Your task to perform on an android device: visit the assistant section in the google photos Image 0: 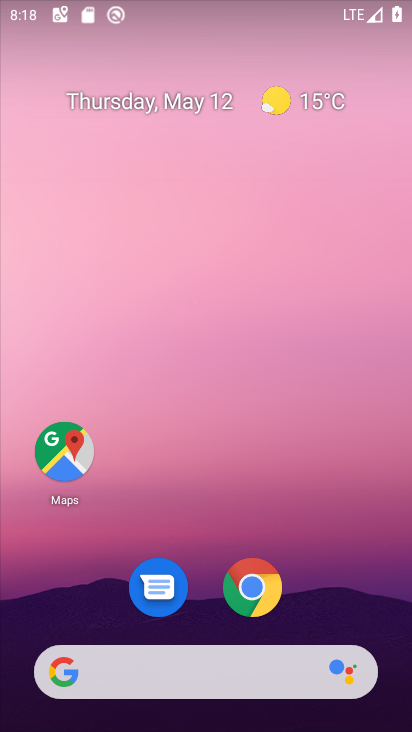
Step 0: drag from (402, 629) to (286, 245)
Your task to perform on an android device: visit the assistant section in the google photos Image 1: 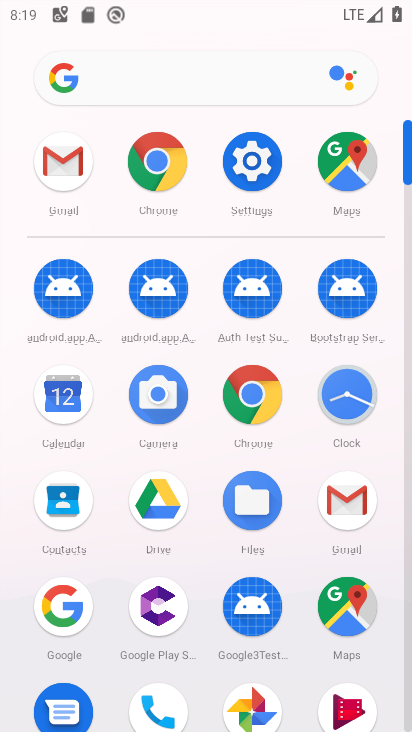
Step 1: click (247, 693)
Your task to perform on an android device: visit the assistant section in the google photos Image 2: 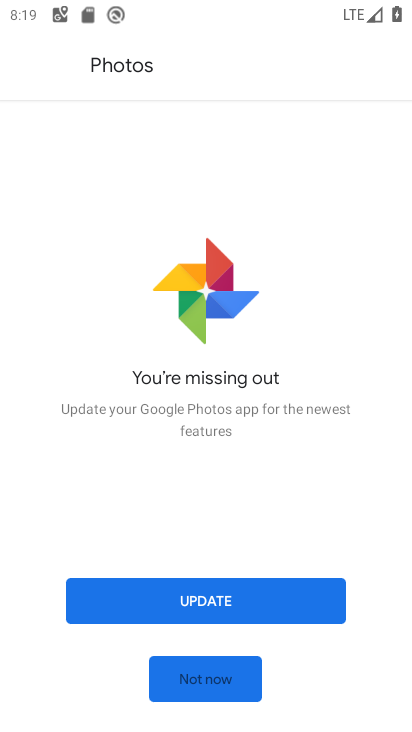
Step 2: click (222, 599)
Your task to perform on an android device: visit the assistant section in the google photos Image 3: 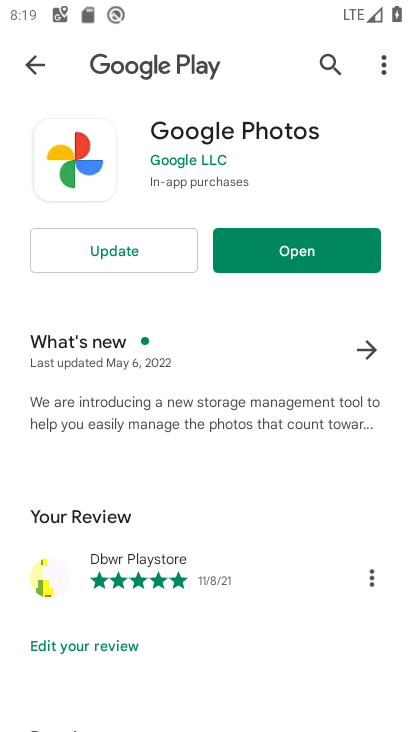
Step 3: click (134, 233)
Your task to perform on an android device: visit the assistant section in the google photos Image 4: 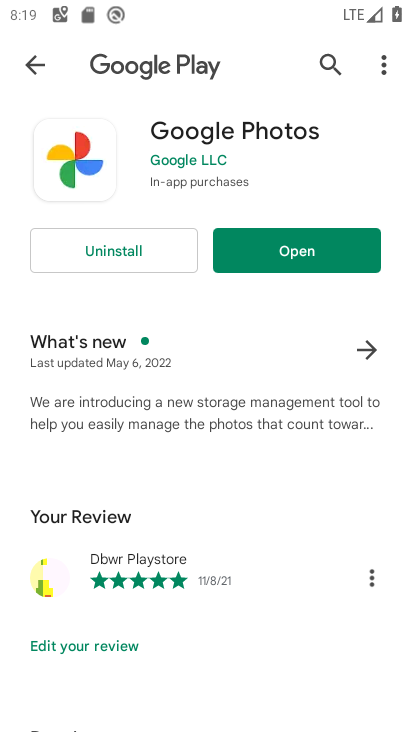
Step 4: click (264, 260)
Your task to perform on an android device: visit the assistant section in the google photos Image 5: 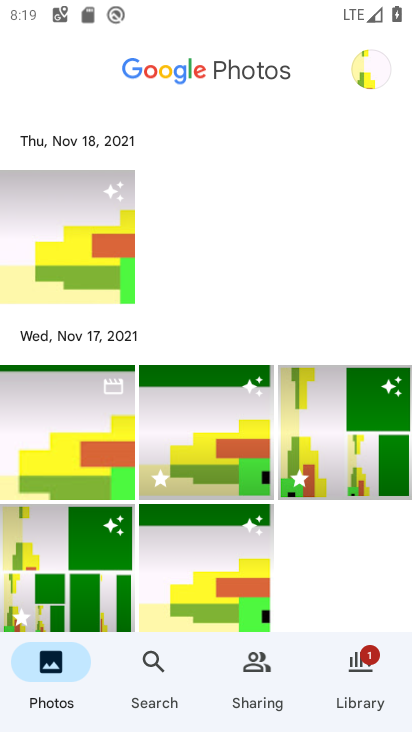
Step 5: task complete